Your task to perform on an android device: Search for Mexican restaurants on Maps Image 0: 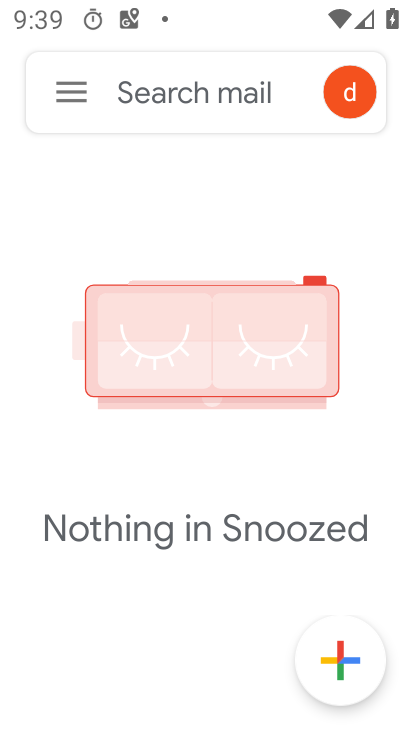
Step 0: press home button
Your task to perform on an android device: Search for Mexican restaurants on Maps Image 1: 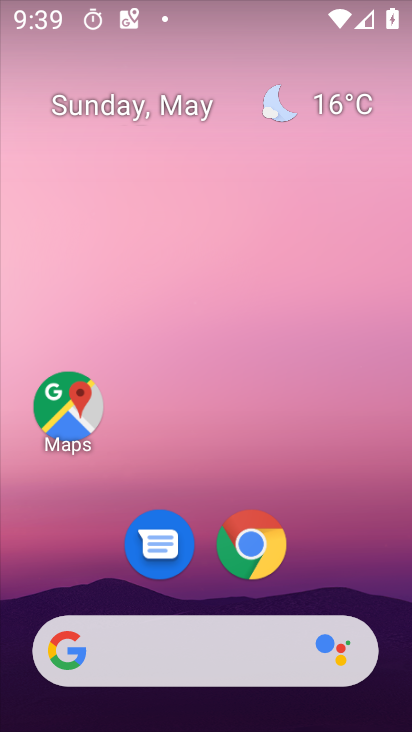
Step 1: drag from (312, 595) to (253, 130)
Your task to perform on an android device: Search for Mexican restaurants on Maps Image 2: 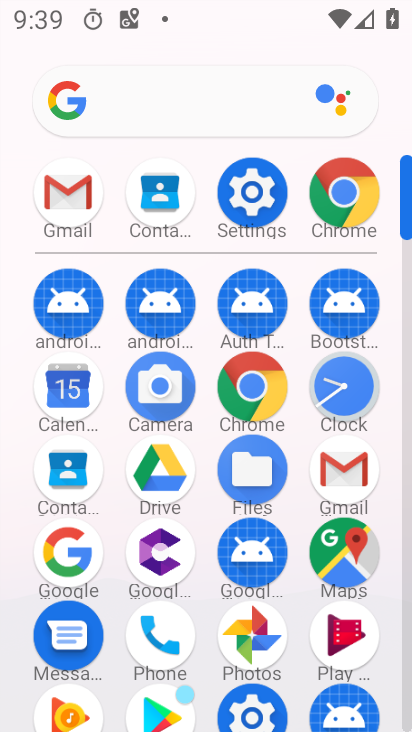
Step 2: click (355, 569)
Your task to perform on an android device: Search for Mexican restaurants on Maps Image 3: 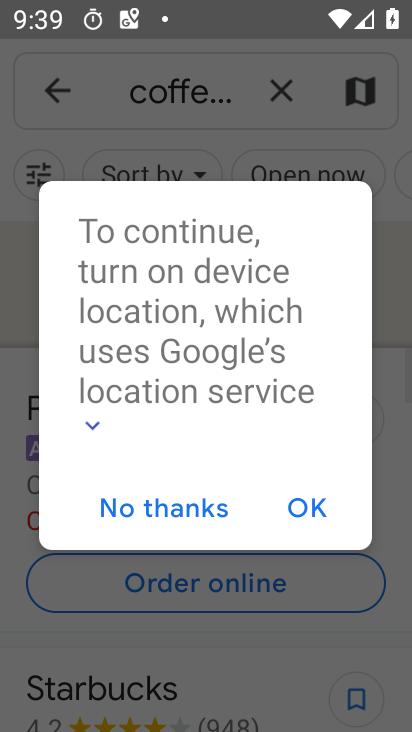
Step 3: click (298, 103)
Your task to perform on an android device: Search for Mexican restaurants on Maps Image 4: 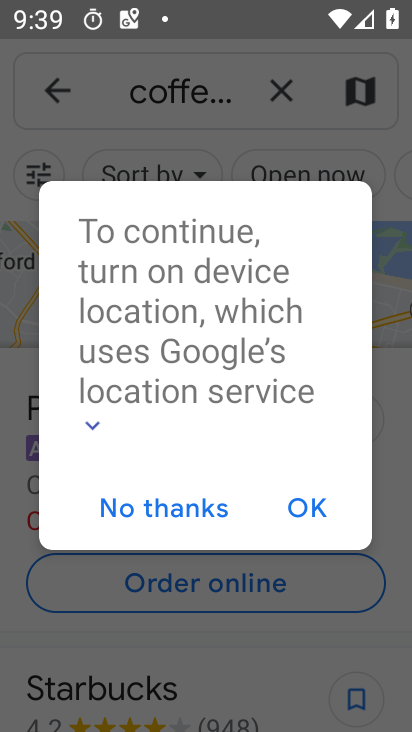
Step 4: click (194, 505)
Your task to perform on an android device: Search for Mexican restaurants on Maps Image 5: 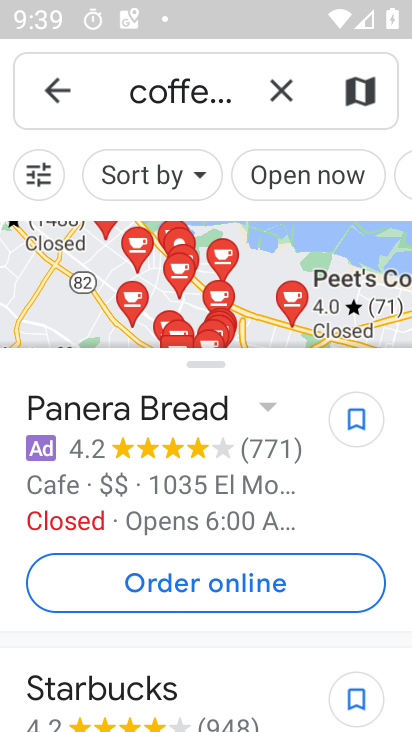
Step 5: click (281, 100)
Your task to perform on an android device: Search for Mexican restaurants on Maps Image 6: 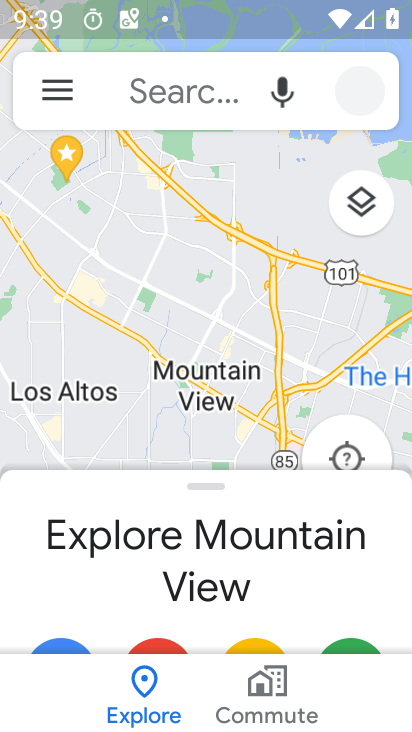
Step 6: click (206, 101)
Your task to perform on an android device: Search for Mexican restaurants on Maps Image 7: 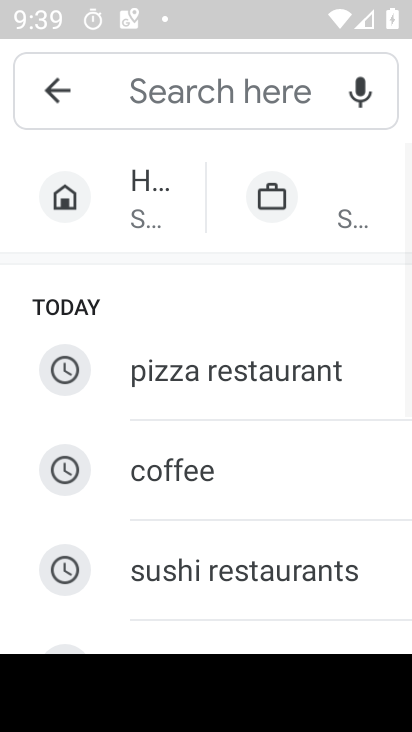
Step 7: drag from (174, 590) to (153, 169)
Your task to perform on an android device: Search for Mexican restaurants on Maps Image 8: 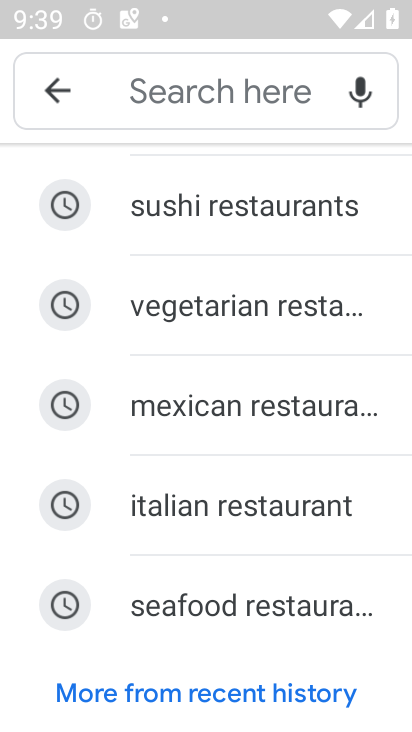
Step 8: click (195, 410)
Your task to perform on an android device: Search for Mexican restaurants on Maps Image 9: 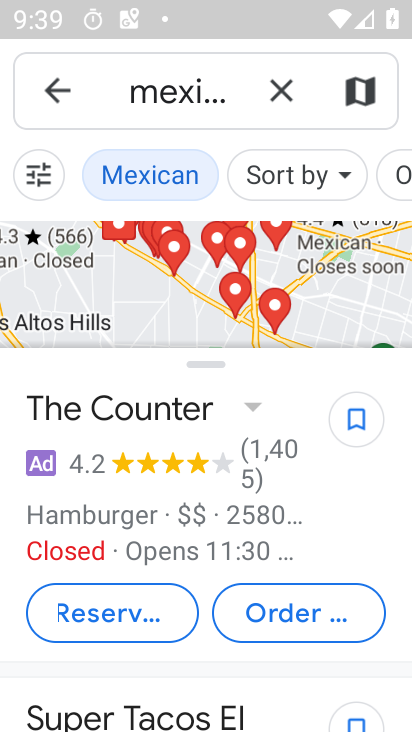
Step 9: task complete